Your task to perform on an android device: Open Google Chrome and click the shortcut for Amazon.com Image 0: 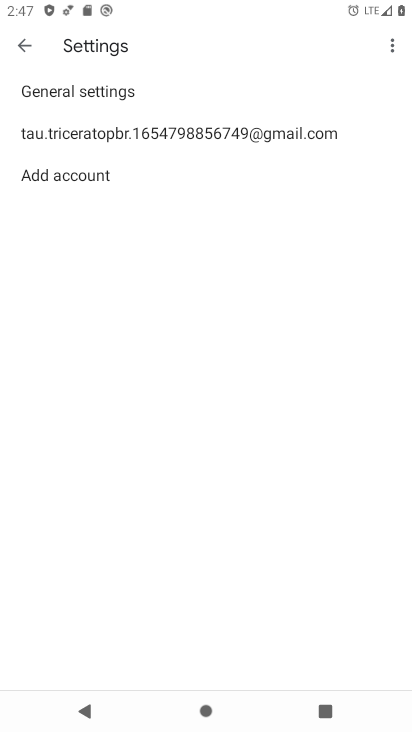
Step 0: press back button
Your task to perform on an android device: Open Google Chrome and click the shortcut for Amazon.com Image 1: 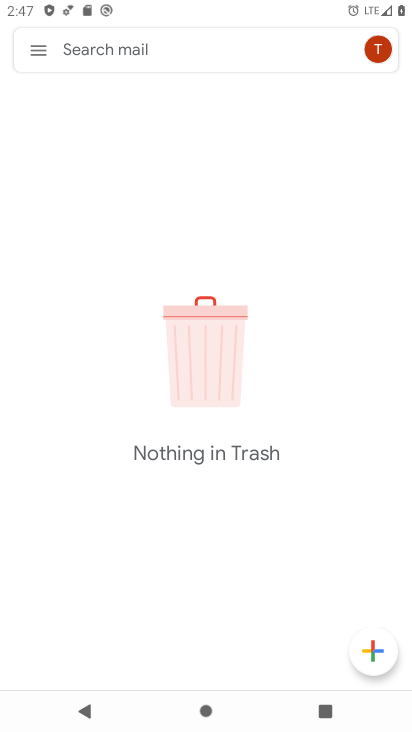
Step 1: press back button
Your task to perform on an android device: Open Google Chrome and click the shortcut for Amazon.com Image 2: 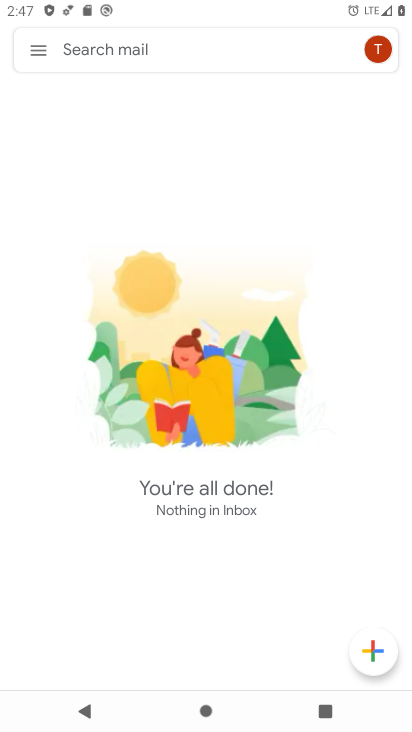
Step 2: press back button
Your task to perform on an android device: Open Google Chrome and click the shortcut for Amazon.com Image 3: 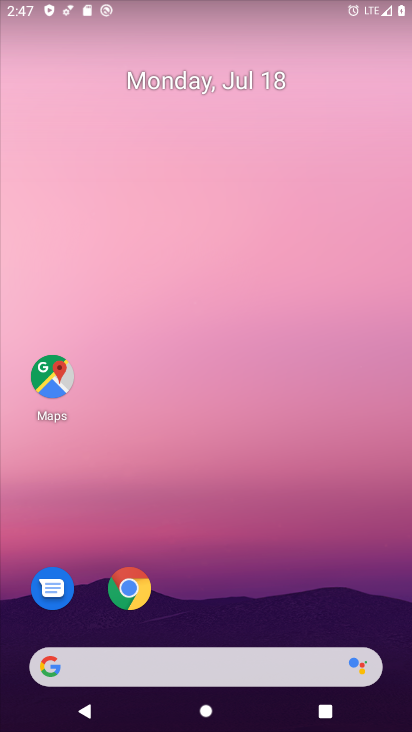
Step 3: click (123, 575)
Your task to perform on an android device: Open Google Chrome and click the shortcut for Amazon.com Image 4: 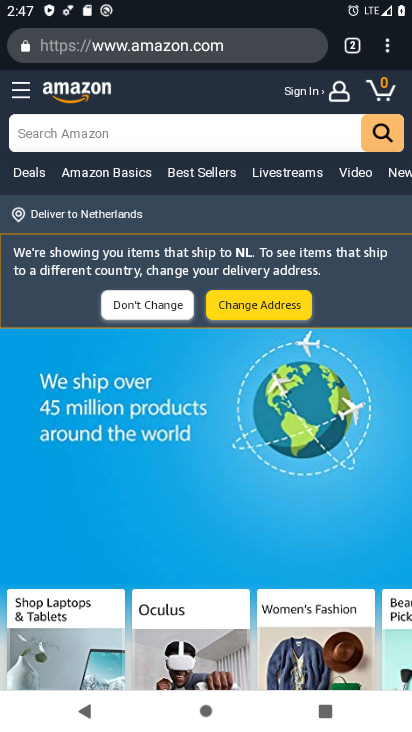
Step 4: task complete